Your task to perform on an android device: Open Google Chrome and click the shortcut for Amazon.com Image 0: 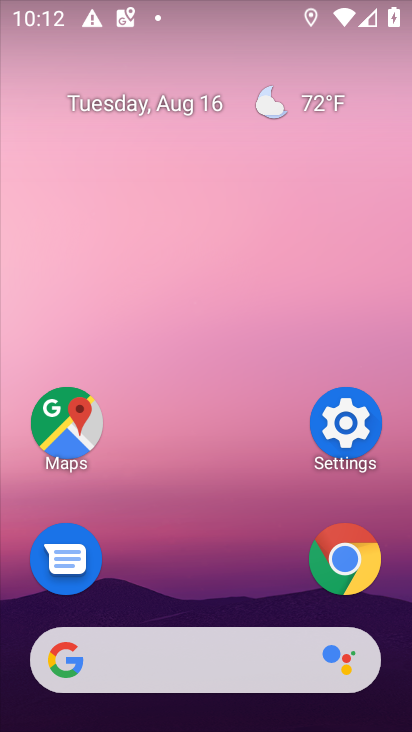
Step 0: click (344, 568)
Your task to perform on an android device: Open Google Chrome and click the shortcut for Amazon.com Image 1: 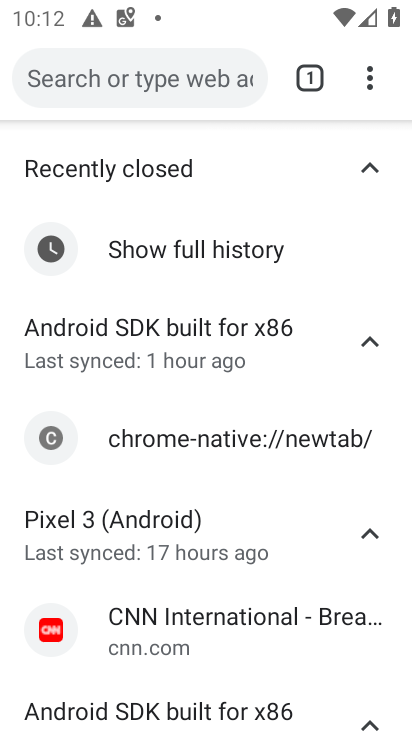
Step 1: drag from (363, 76) to (197, 149)
Your task to perform on an android device: Open Google Chrome and click the shortcut for Amazon.com Image 2: 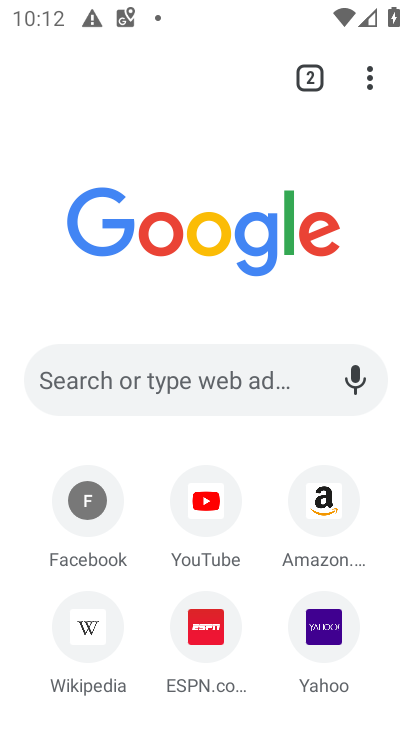
Step 2: drag from (236, 431) to (346, 208)
Your task to perform on an android device: Open Google Chrome and click the shortcut for Amazon.com Image 3: 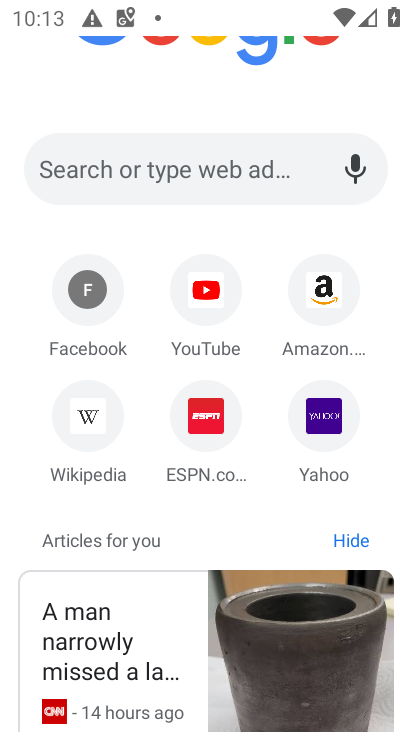
Step 3: click (320, 290)
Your task to perform on an android device: Open Google Chrome and click the shortcut for Amazon.com Image 4: 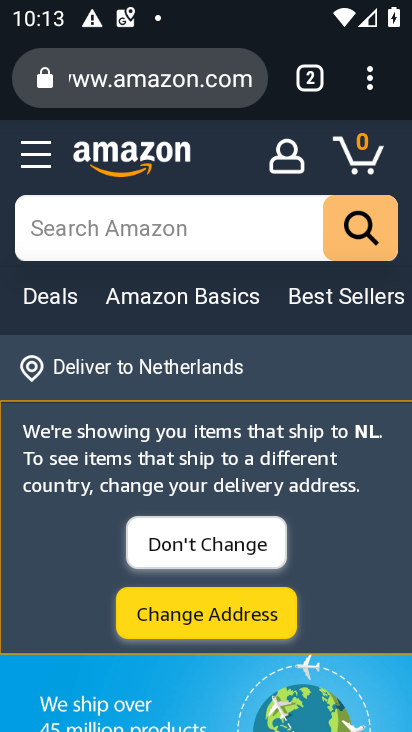
Step 4: task complete